Your task to perform on an android device: Add razer kraken to the cart on ebay.com, then select checkout. Image 0: 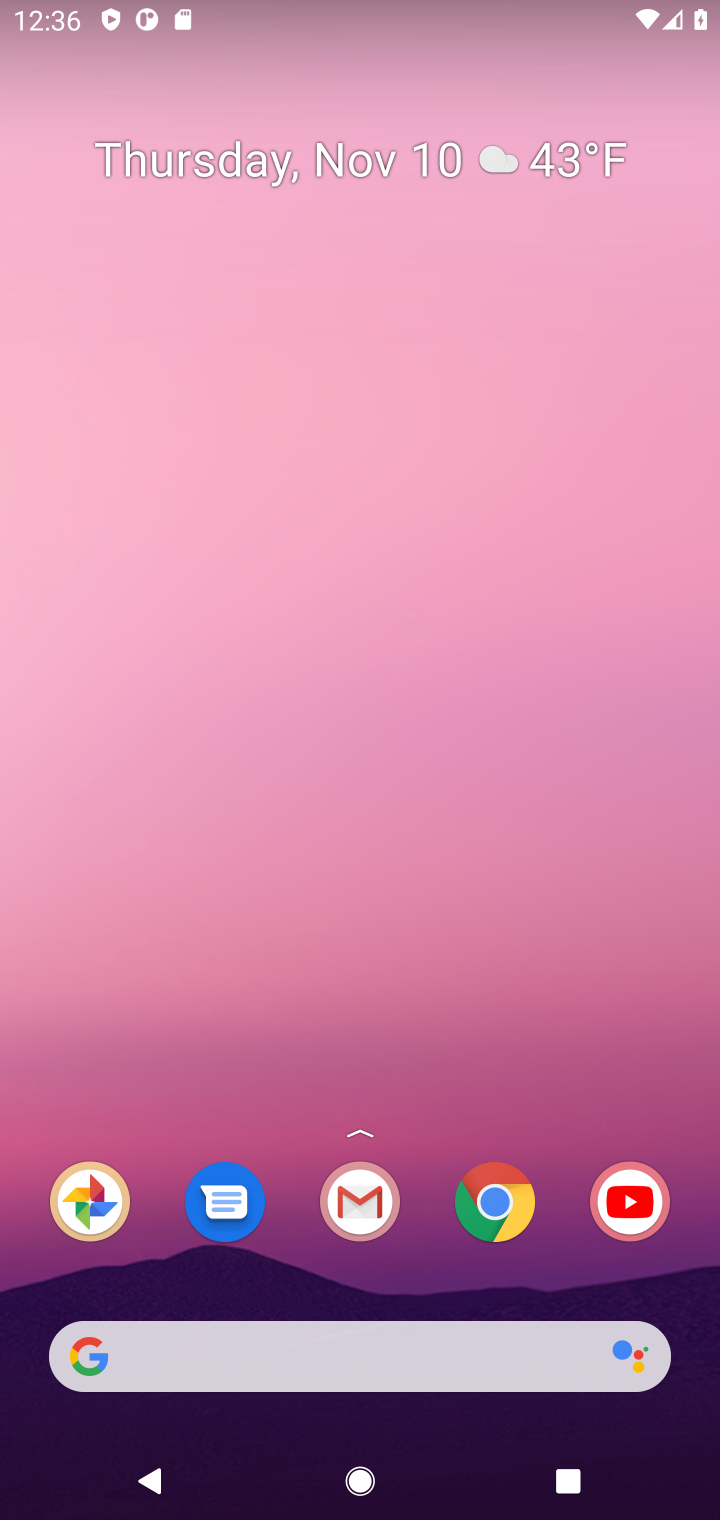
Step 0: click (511, 1207)
Your task to perform on an android device: Add razer kraken to the cart on ebay.com, then select checkout. Image 1: 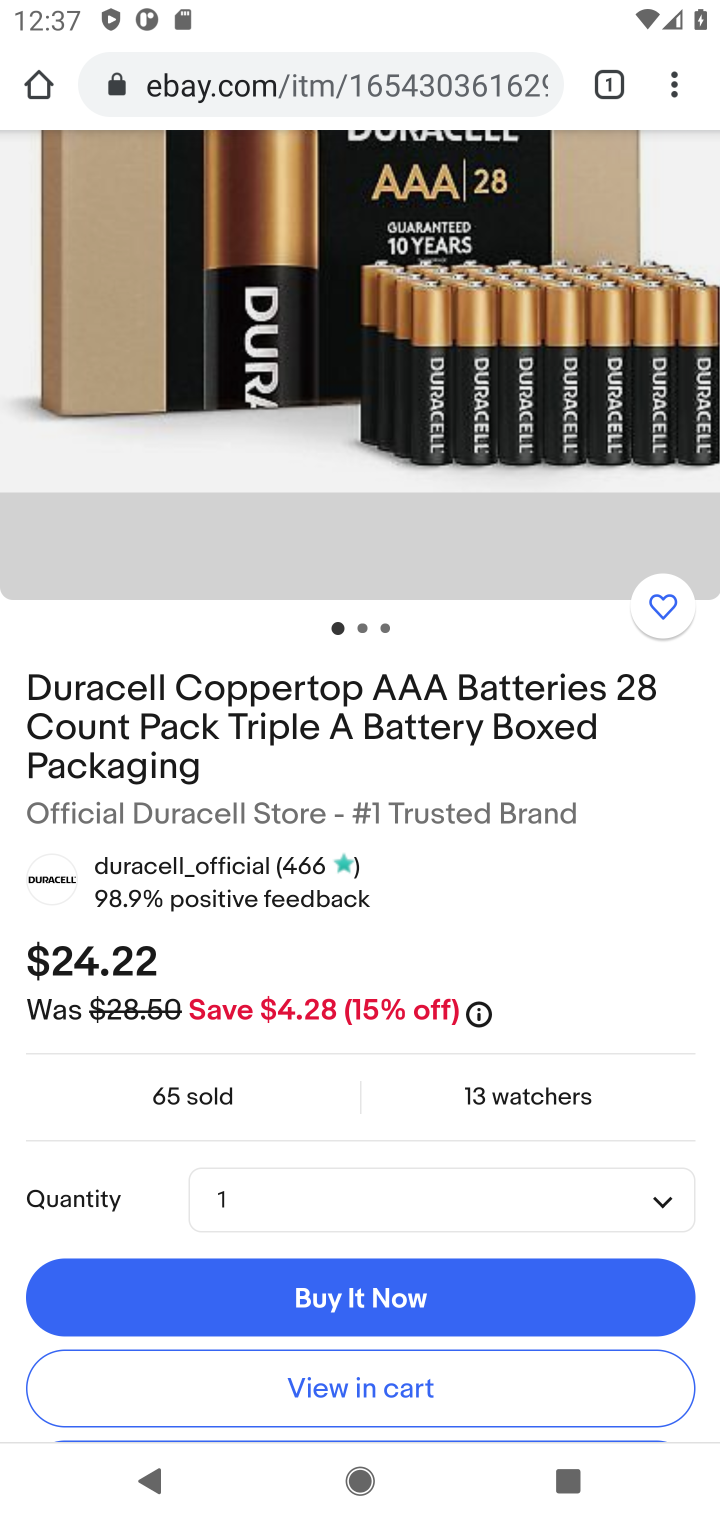
Step 1: drag from (346, 770) to (434, 1375)
Your task to perform on an android device: Add razer kraken to the cart on ebay.com, then select checkout. Image 2: 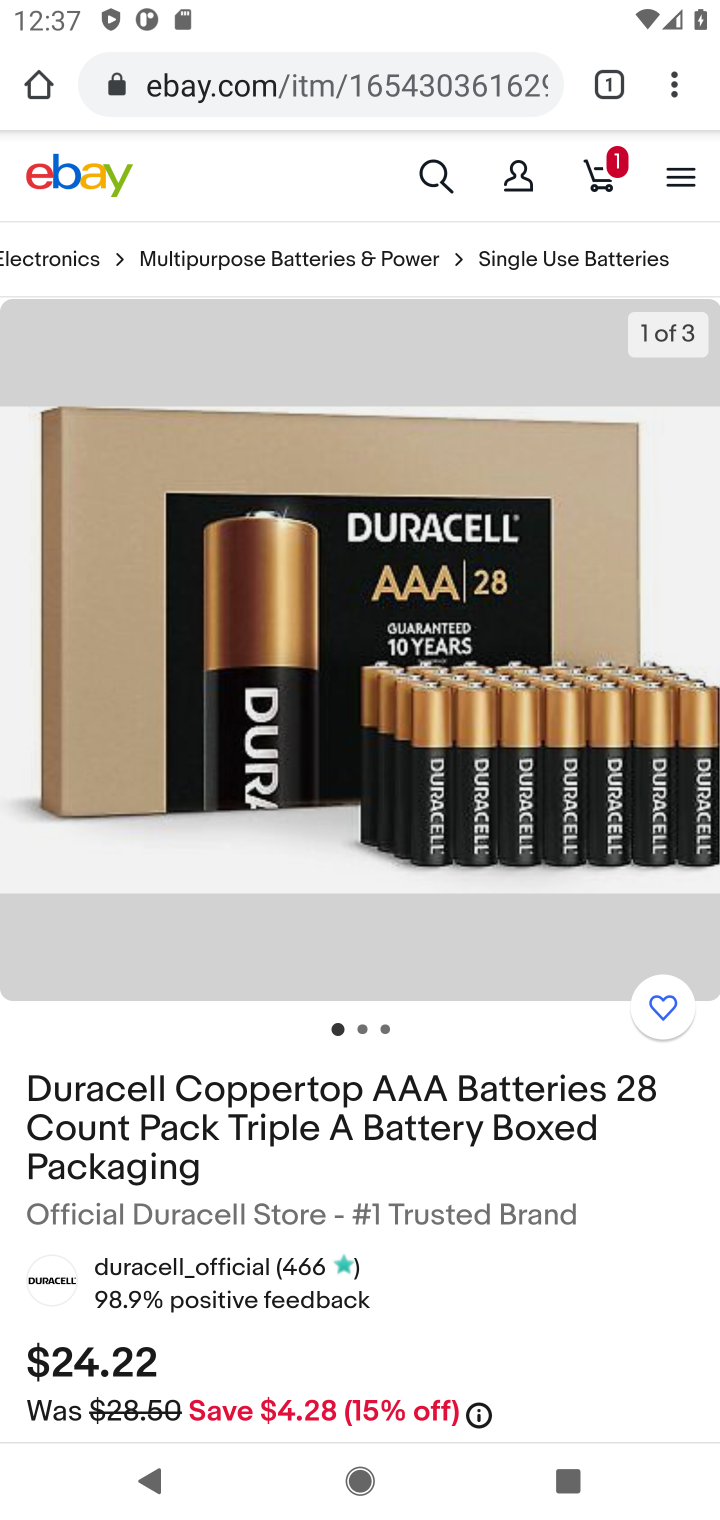
Step 2: click (423, 171)
Your task to perform on an android device: Add razer kraken to the cart on ebay.com, then select checkout. Image 3: 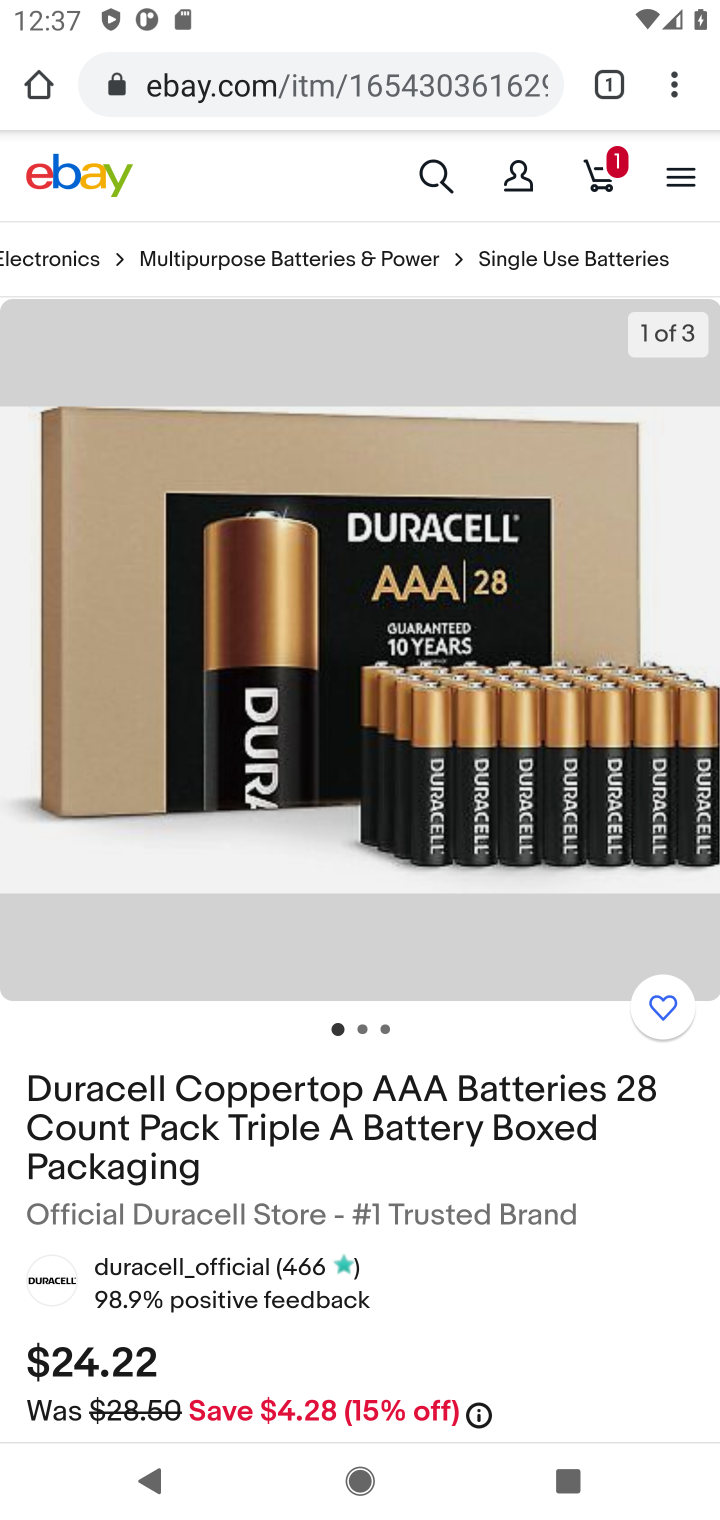
Step 3: click (424, 169)
Your task to perform on an android device: Add razer kraken to the cart on ebay.com, then select checkout. Image 4: 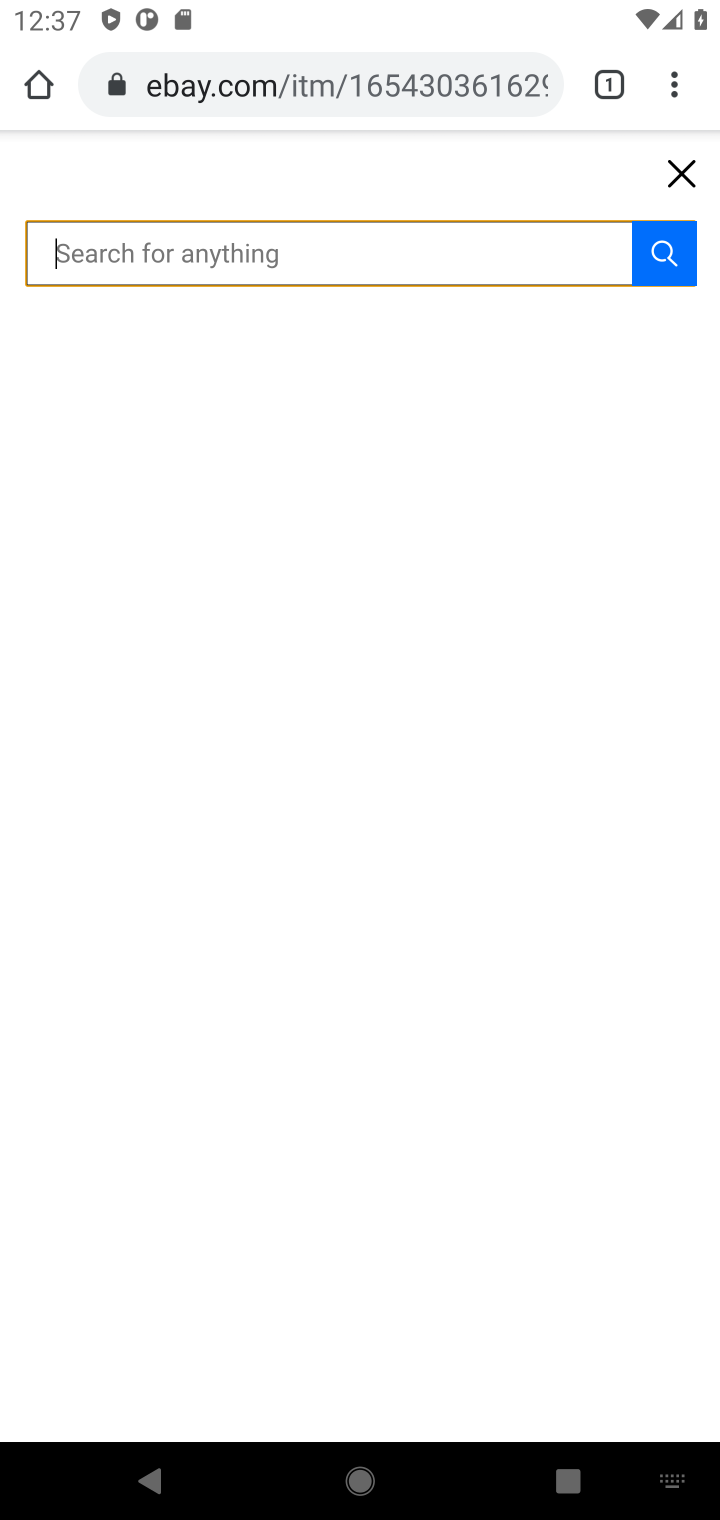
Step 4: type " razer kraken"
Your task to perform on an android device: Add razer kraken to the cart on ebay.com, then select checkout. Image 5: 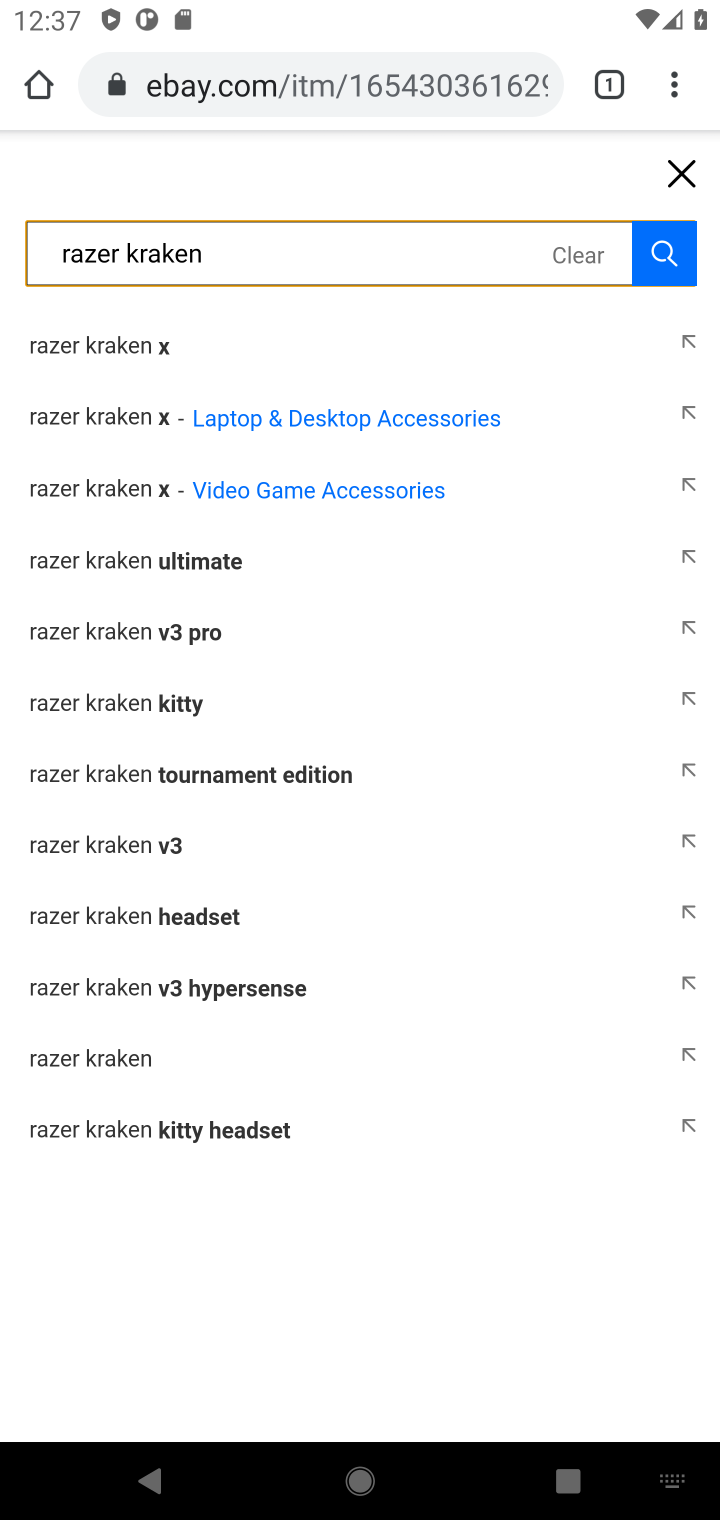
Step 5: click (146, 1068)
Your task to perform on an android device: Add razer kraken to the cart on ebay.com, then select checkout. Image 6: 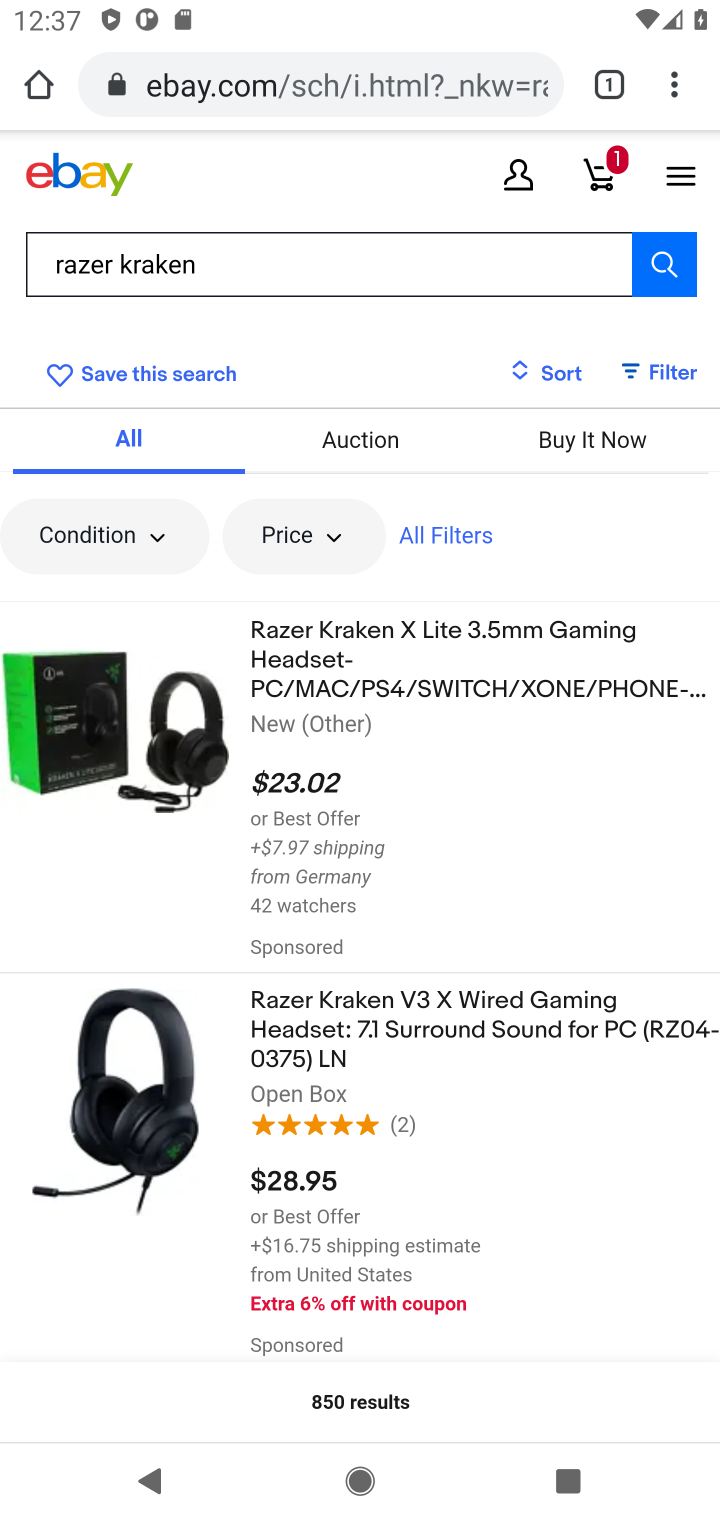
Step 6: click (104, 1081)
Your task to perform on an android device: Add razer kraken to the cart on ebay.com, then select checkout. Image 7: 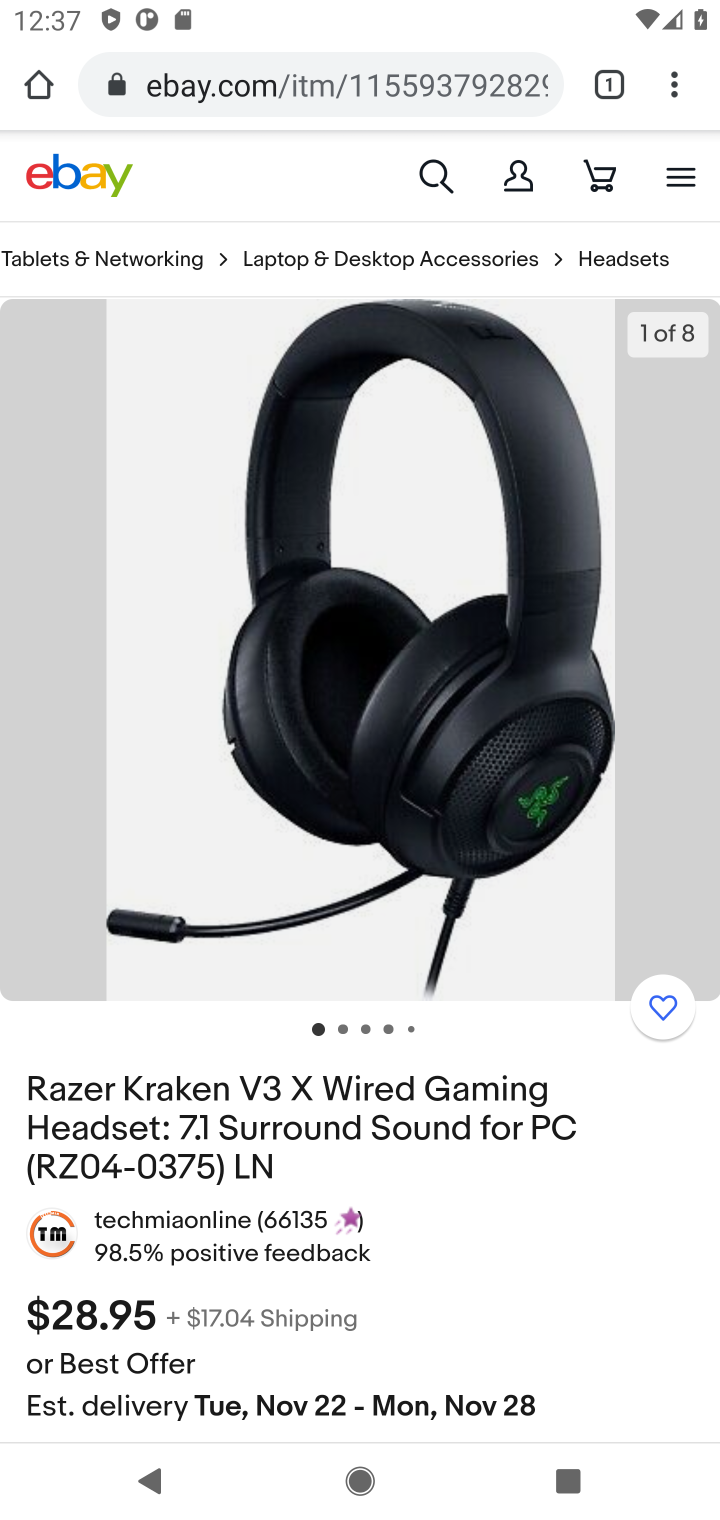
Step 7: drag from (539, 1244) to (469, 720)
Your task to perform on an android device: Add razer kraken to the cart on ebay.com, then select checkout. Image 8: 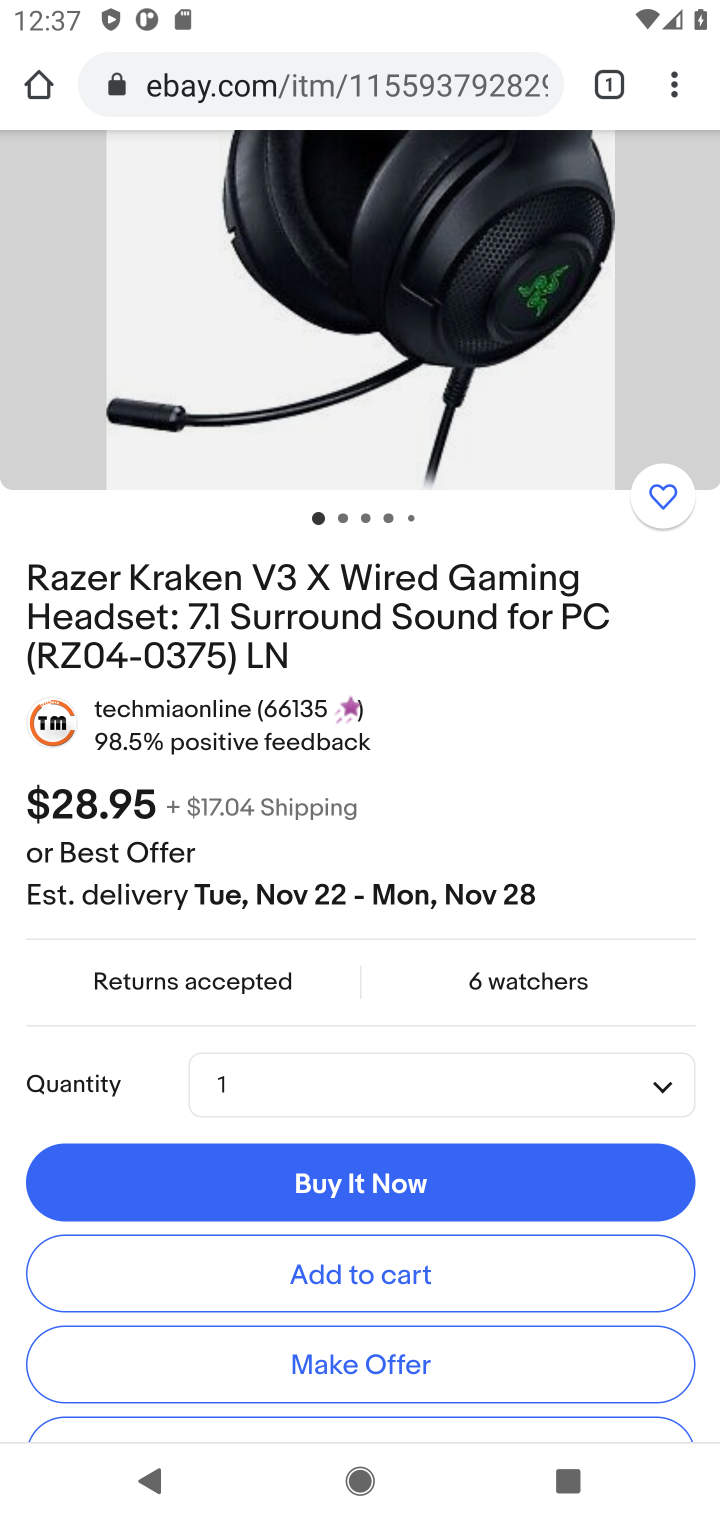
Step 8: click (376, 1268)
Your task to perform on an android device: Add razer kraken to the cart on ebay.com, then select checkout. Image 9: 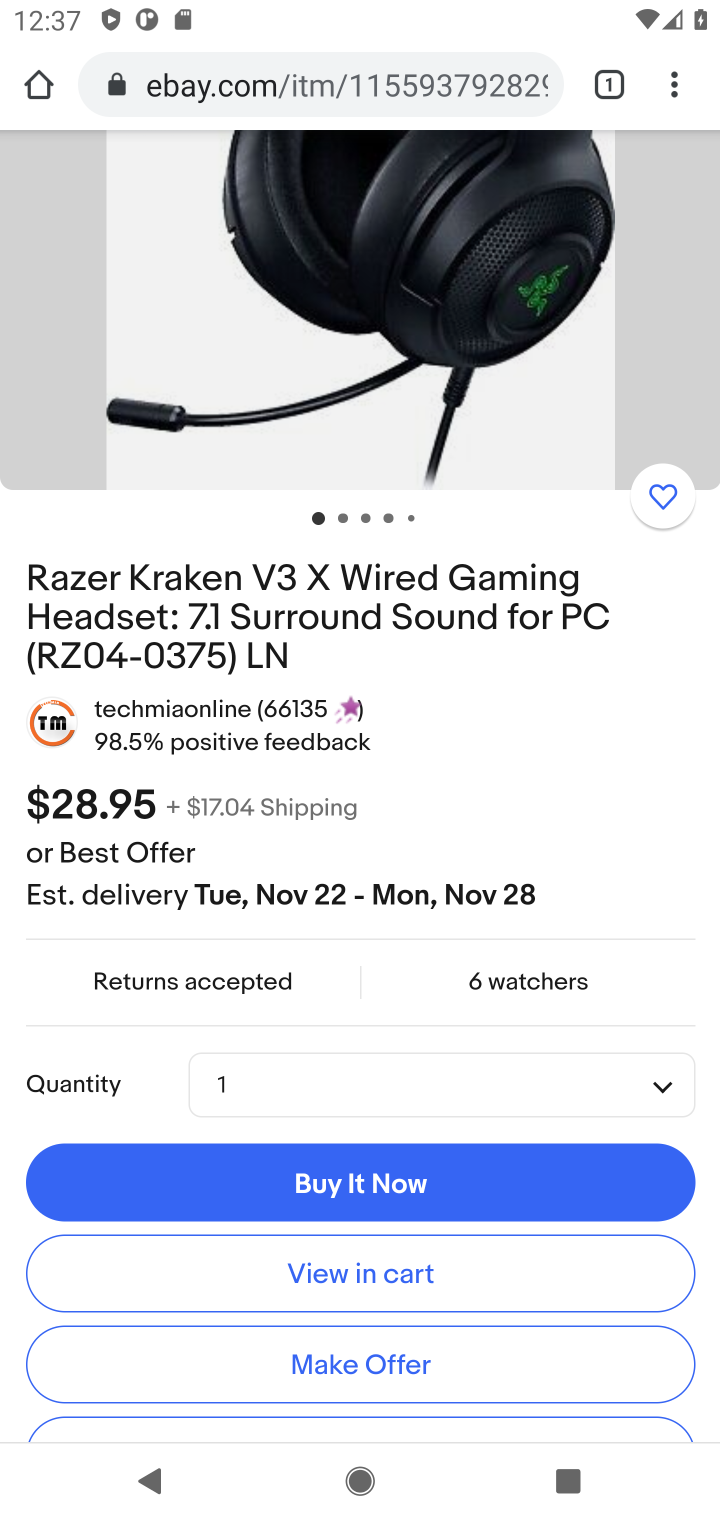
Step 9: click (400, 1256)
Your task to perform on an android device: Add razer kraken to the cart on ebay.com, then select checkout. Image 10: 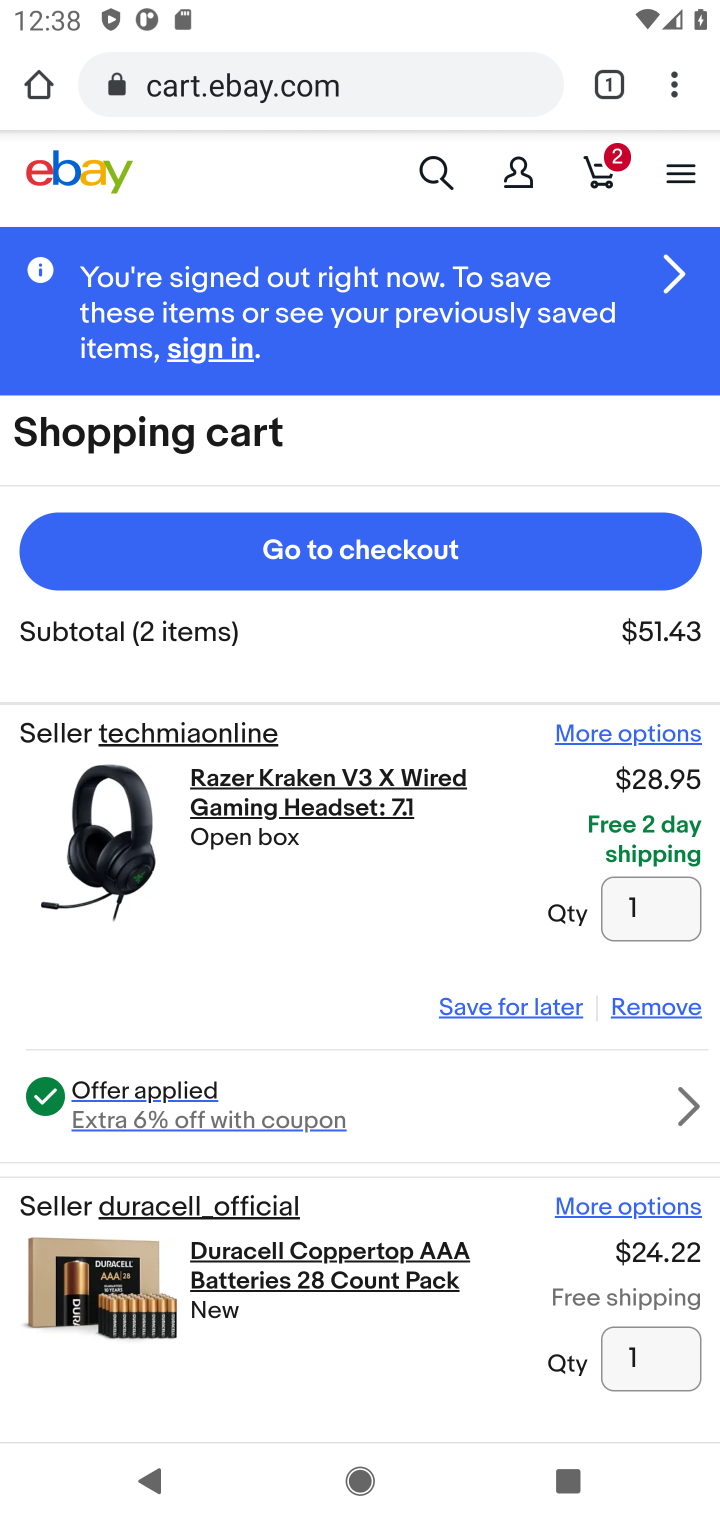
Step 10: click (435, 552)
Your task to perform on an android device: Add razer kraken to the cart on ebay.com, then select checkout. Image 11: 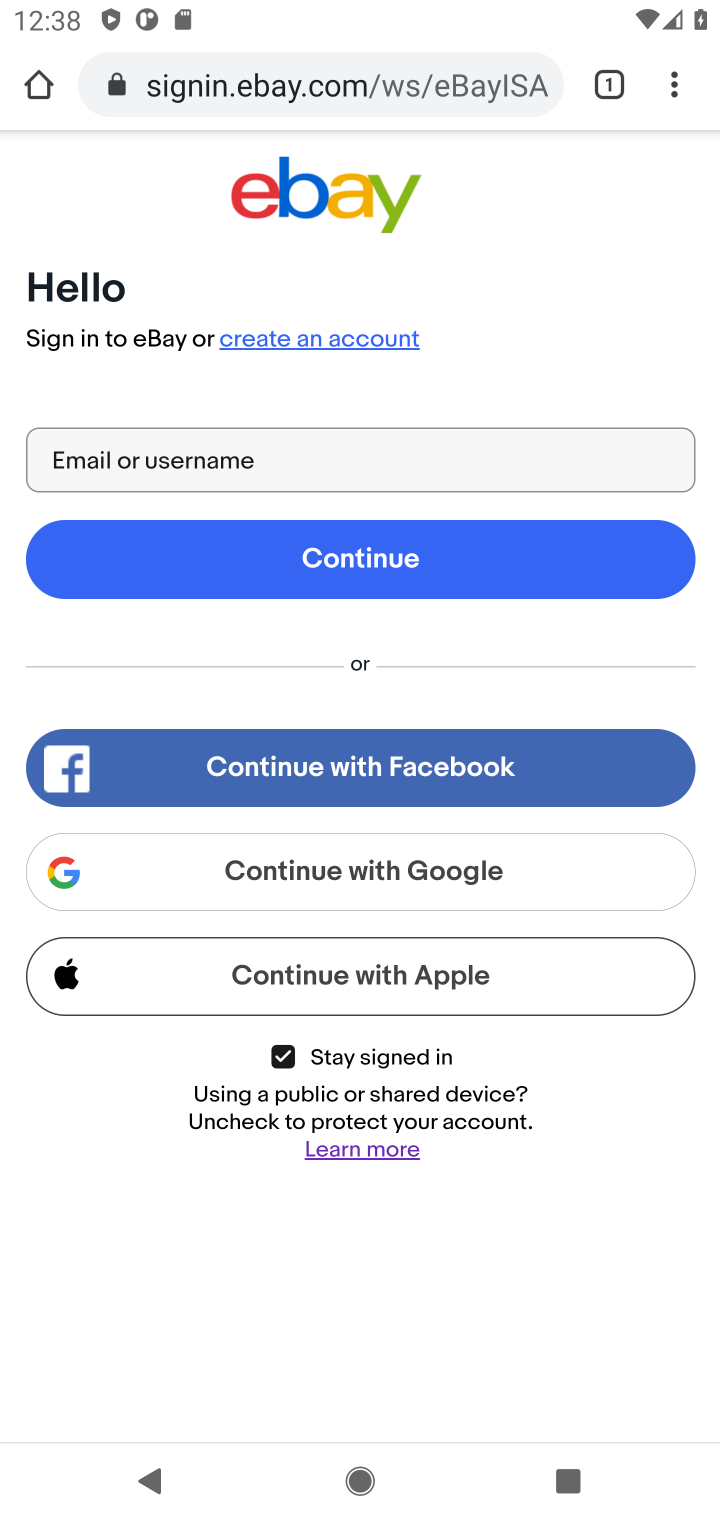
Step 11: task complete